Your task to perform on an android device: Go to Reddit.com Image 0: 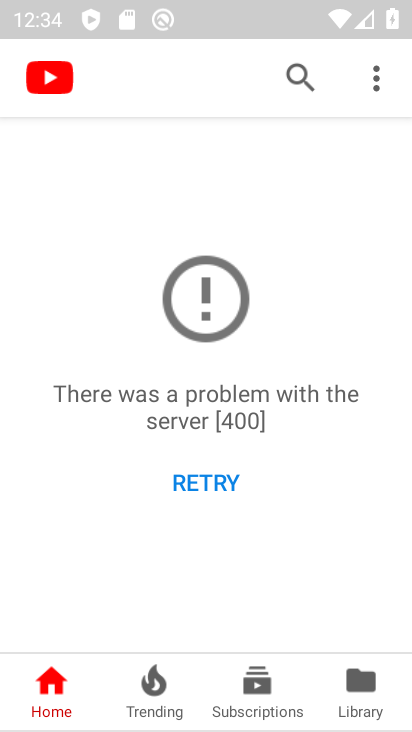
Step 0: press home button
Your task to perform on an android device: Go to Reddit.com Image 1: 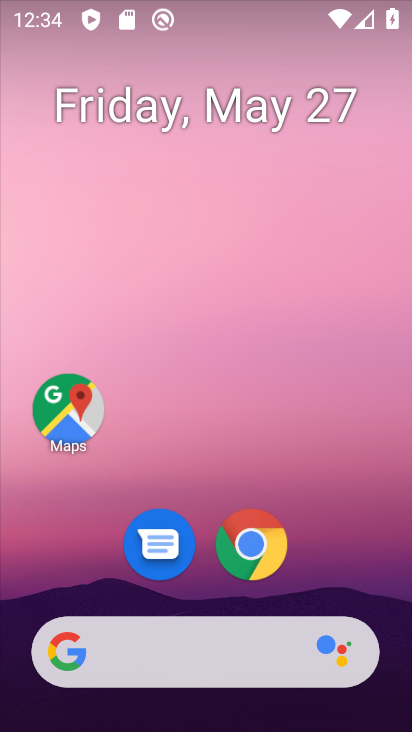
Step 1: click (252, 548)
Your task to perform on an android device: Go to Reddit.com Image 2: 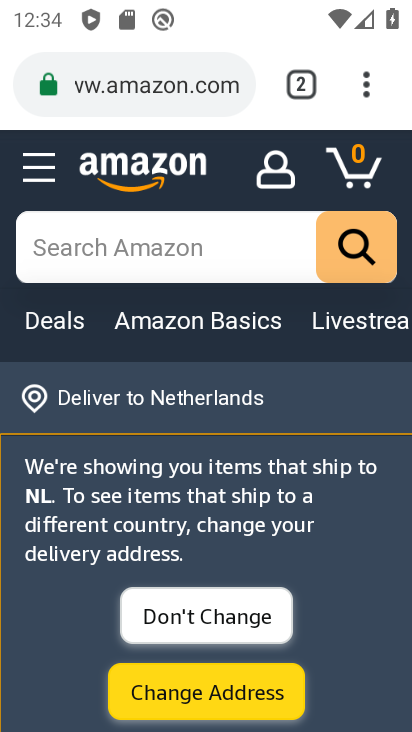
Step 2: click (367, 77)
Your task to perform on an android device: Go to Reddit.com Image 3: 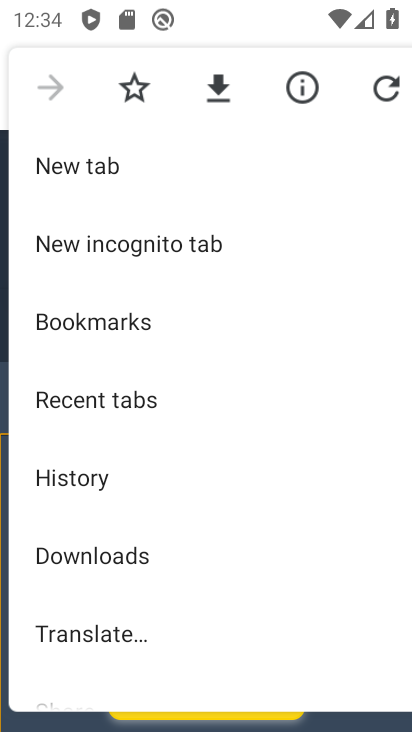
Step 3: click (100, 164)
Your task to perform on an android device: Go to Reddit.com Image 4: 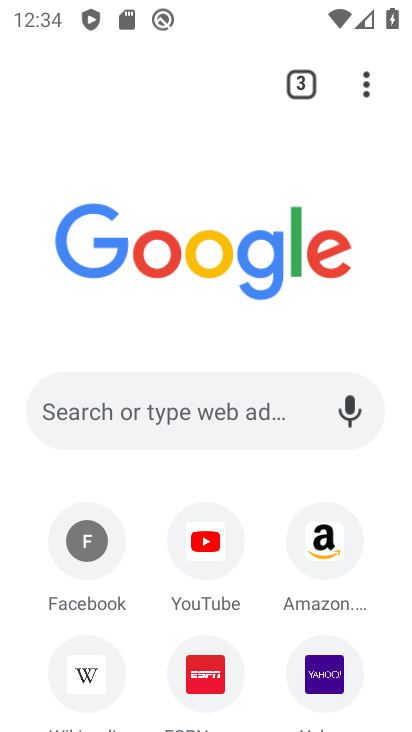
Step 4: click (188, 388)
Your task to perform on an android device: Go to Reddit.com Image 5: 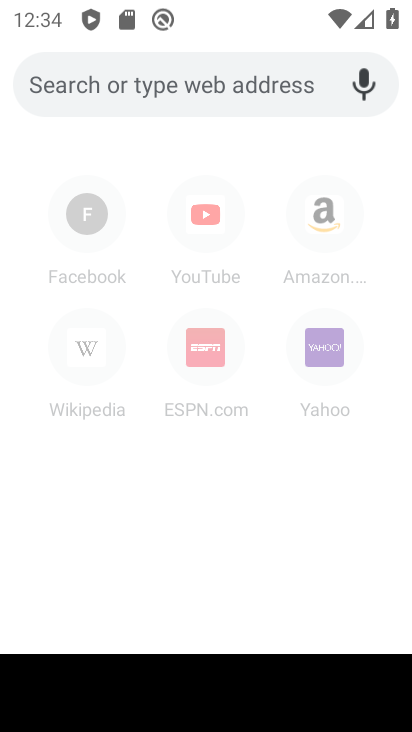
Step 5: type "reddit"
Your task to perform on an android device: Go to Reddit.com Image 6: 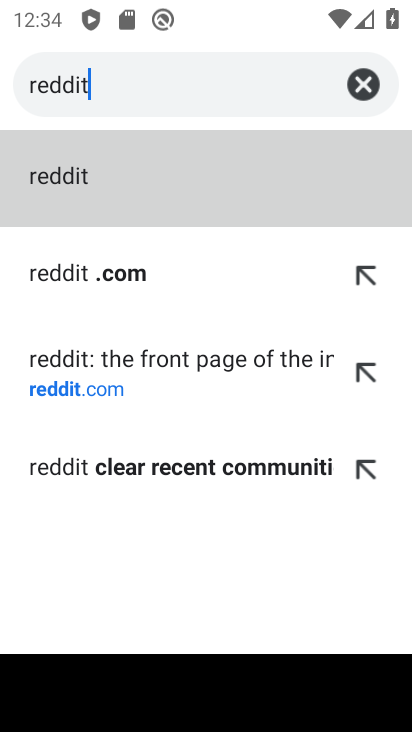
Step 6: click (107, 275)
Your task to perform on an android device: Go to Reddit.com Image 7: 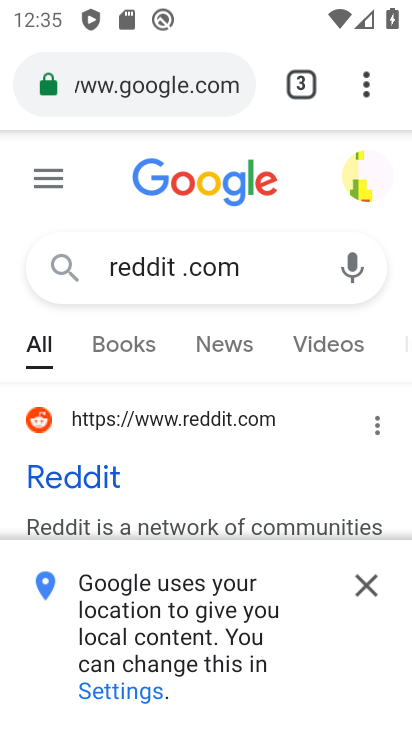
Step 7: task complete